Your task to perform on an android device: check google app version Image 0: 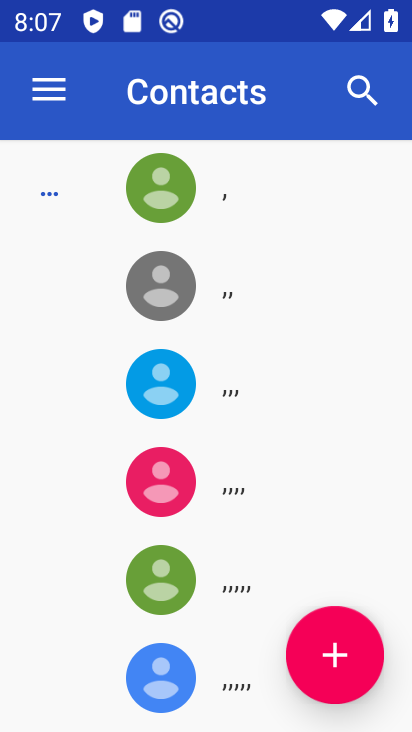
Step 0: press home button
Your task to perform on an android device: check google app version Image 1: 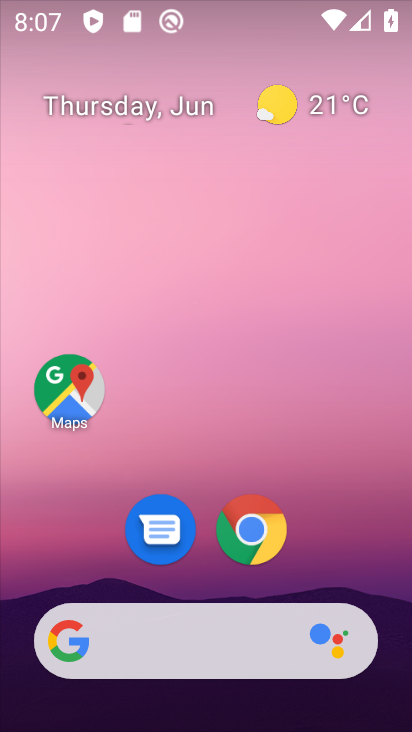
Step 1: drag from (395, 696) to (359, 102)
Your task to perform on an android device: check google app version Image 2: 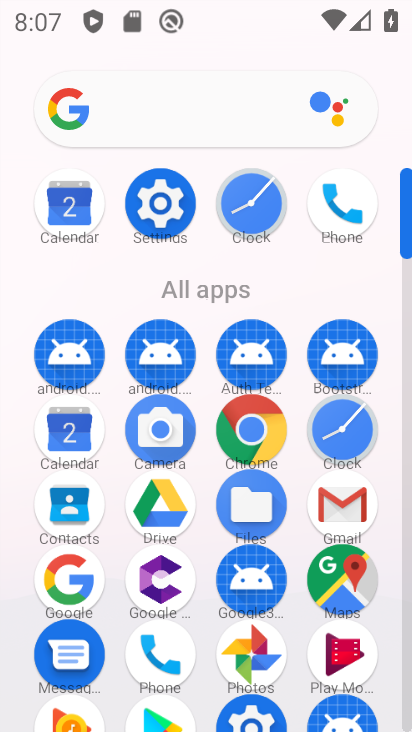
Step 2: click (83, 578)
Your task to perform on an android device: check google app version Image 3: 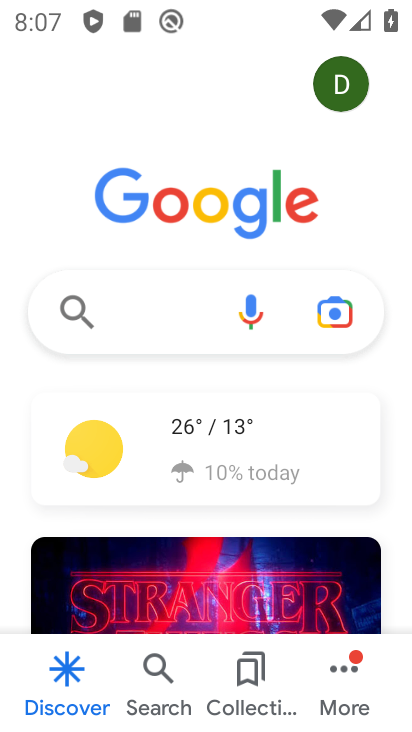
Step 3: click (336, 701)
Your task to perform on an android device: check google app version Image 4: 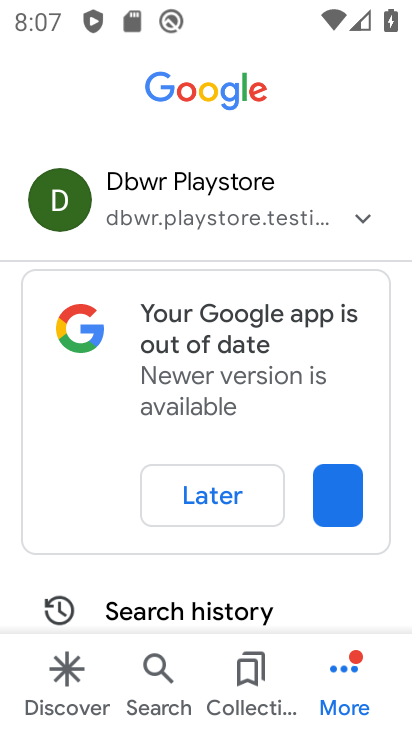
Step 4: click (341, 695)
Your task to perform on an android device: check google app version Image 5: 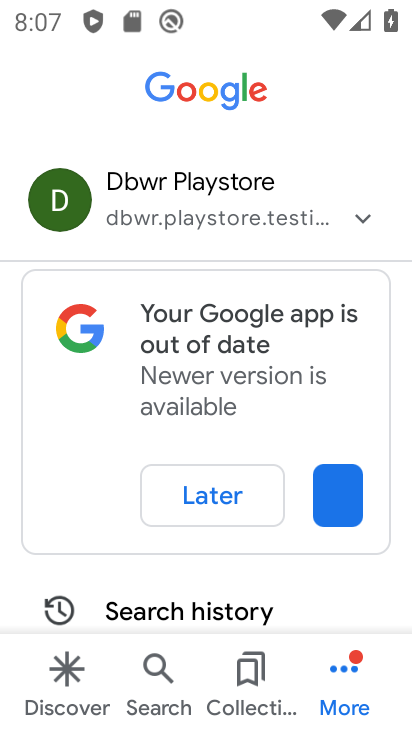
Step 5: click (341, 695)
Your task to perform on an android device: check google app version Image 6: 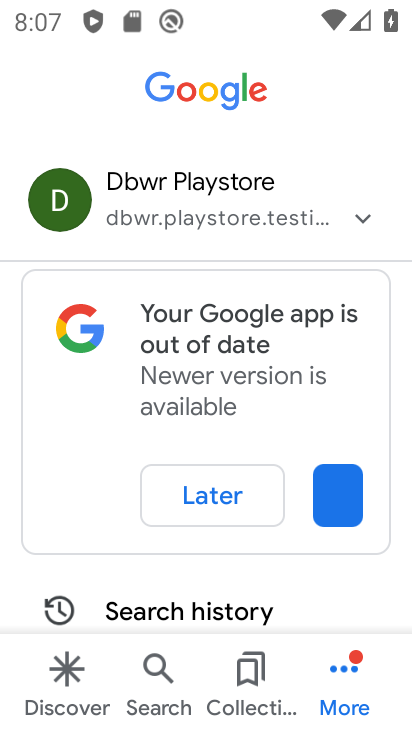
Step 6: click (74, 707)
Your task to perform on an android device: check google app version Image 7: 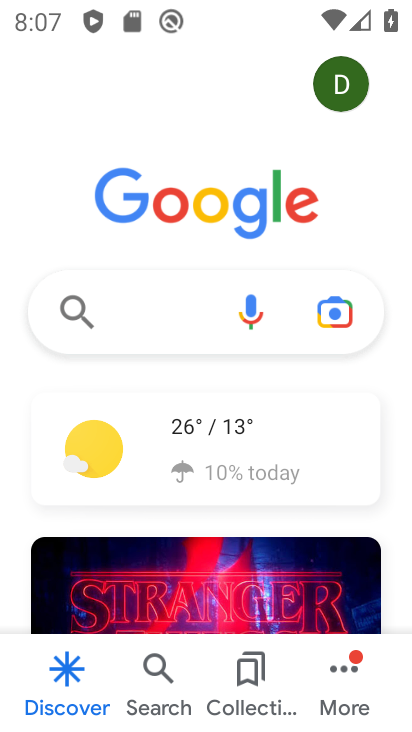
Step 7: click (336, 695)
Your task to perform on an android device: check google app version Image 8: 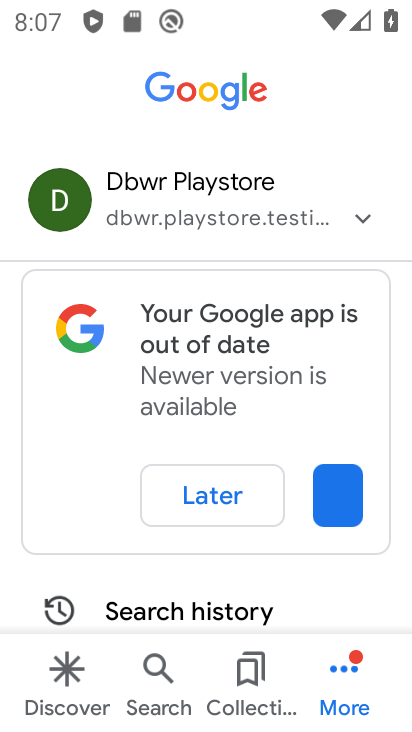
Step 8: click (345, 670)
Your task to perform on an android device: check google app version Image 9: 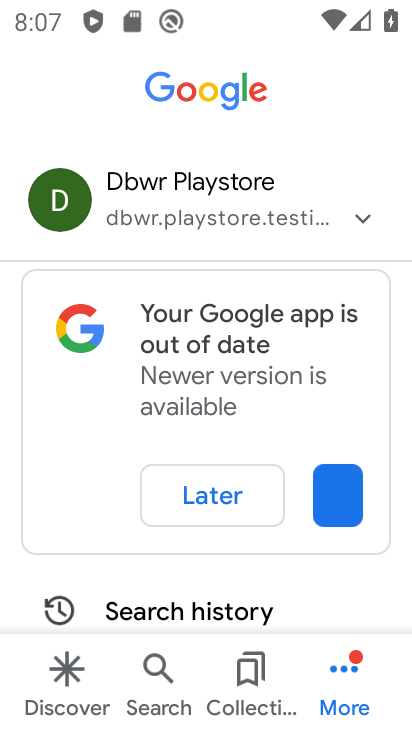
Step 9: click (350, 710)
Your task to perform on an android device: check google app version Image 10: 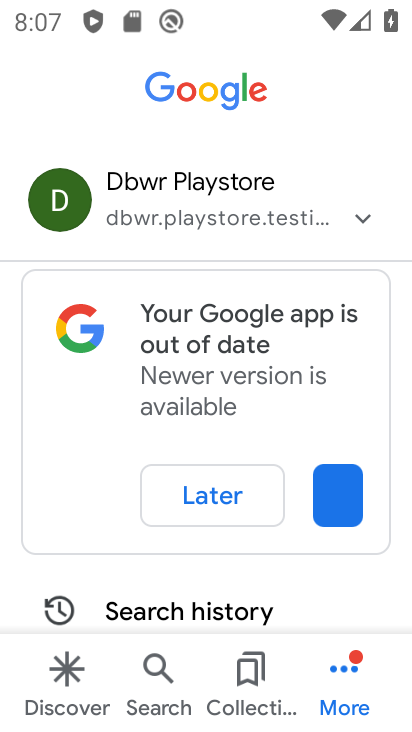
Step 10: drag from (82, 559) to (92, 270)
Your task to perform on an android device: check google app version Image 11: 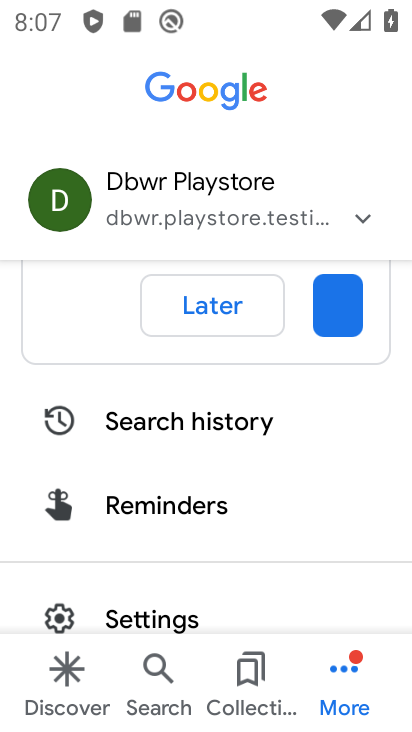
Step 11: click (109, 602)
Your task to perform on an android device: check google app version Image 12: 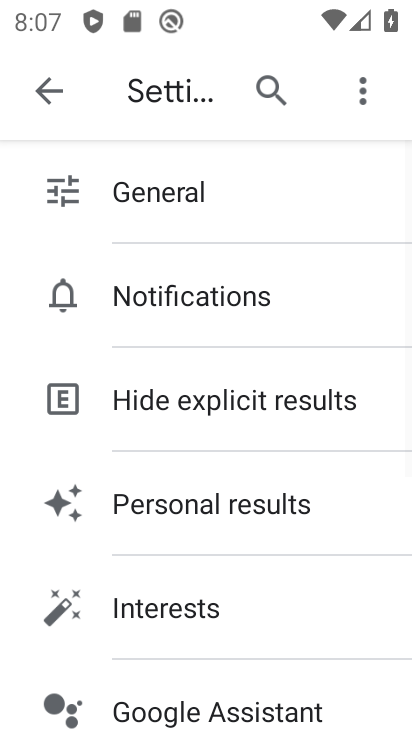
Step 12: drag from (222, 695) to (230, 279)
Your task to perform on an android device: check google app version Image 13: 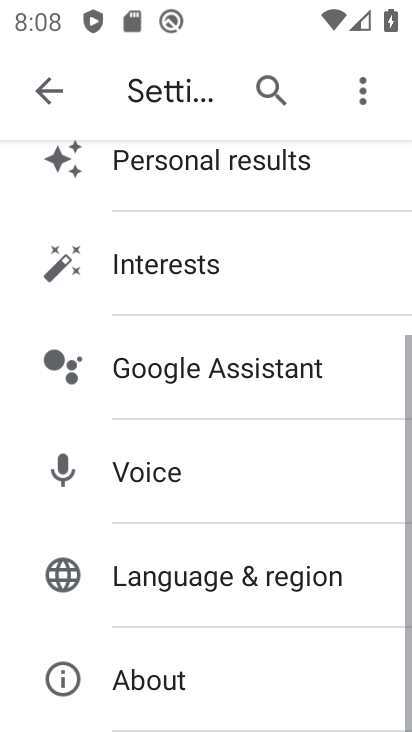
Step 13: click (163, 688)
Your task to perform on an android device: check google app version Image 14: 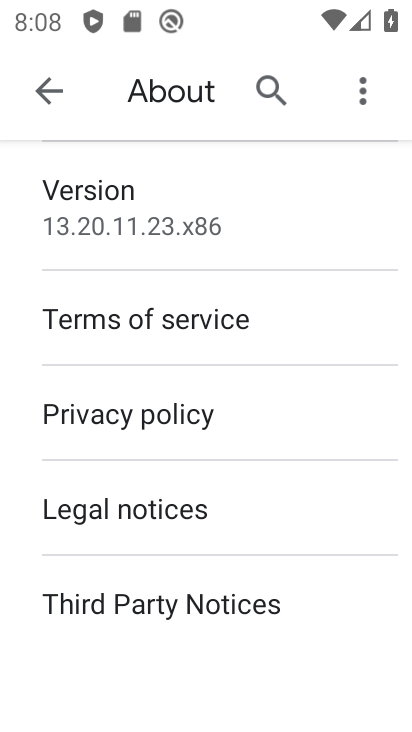
Step 14: click (104, 192)
Your task to perform on an android device: check google app version Image 15: 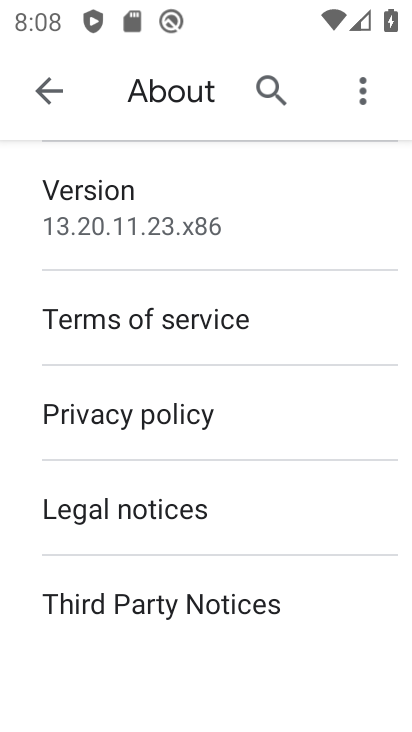
Step 15: task complete